Your task to perform on an android device: delete the emails in spam in the gmail app Image 0: 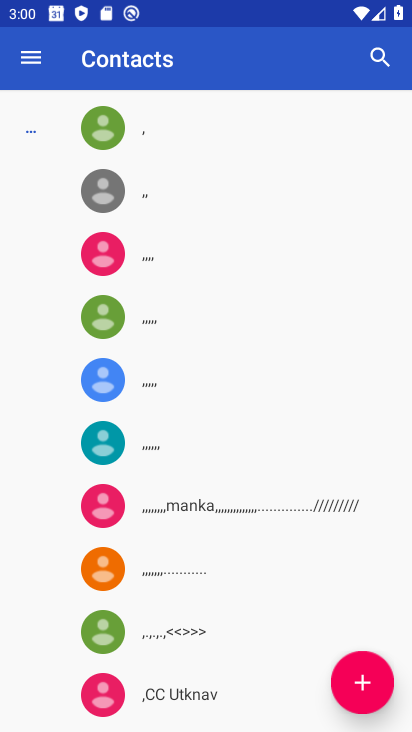
Step 0: press home button
Your task to perform on an android device: delete the emails in spam in the gmail app Image 1: 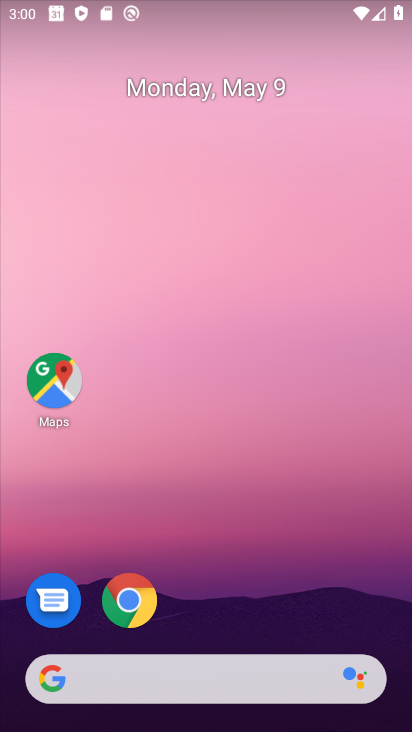
Step 1: drag from (194, 729) to (204, 121)
Your task to perform on an android device: delete the emails in spam in the gmail app Image 2: 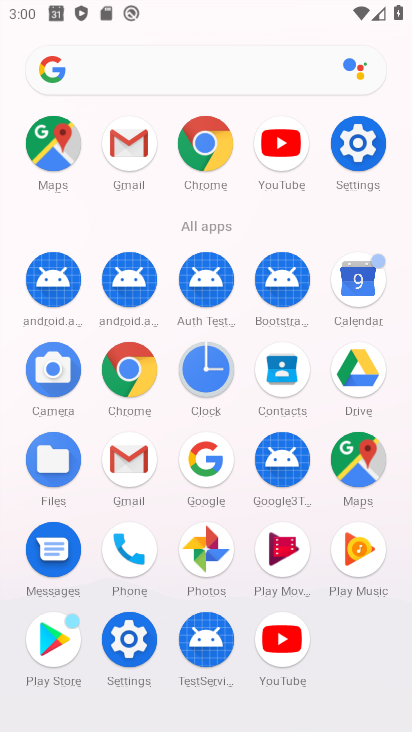
Step 2: click (136, 468)
Your task to perform on an android device: delete the emails in spam in the gmail app Image 3: 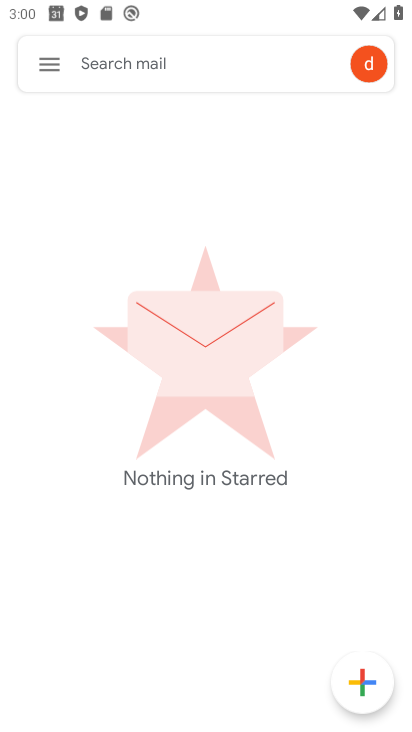
Step 3: click (43, 61)
Your task to perform on an android device: delete the emails in spam in the gmail app Image 4: 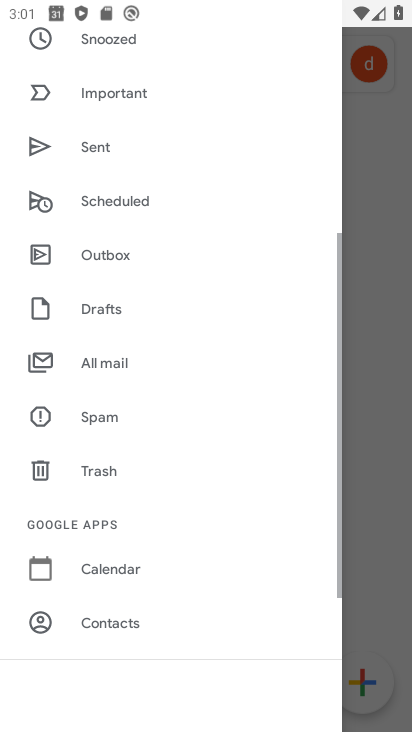
Step 4: drag from (142, 76) to (160, 578)
Your task to perform on an android device: delete the emails in spam in the gmail app Image 5: 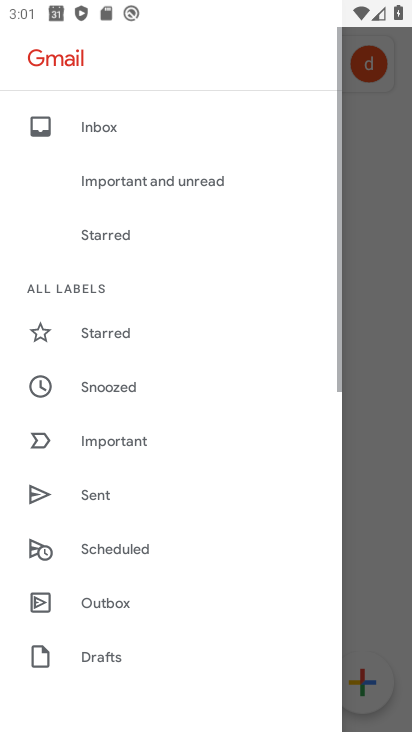
Step 5: click (108, 127)
Your task to perform on an android device: delete the emails in spam in the gmail app Image 6: 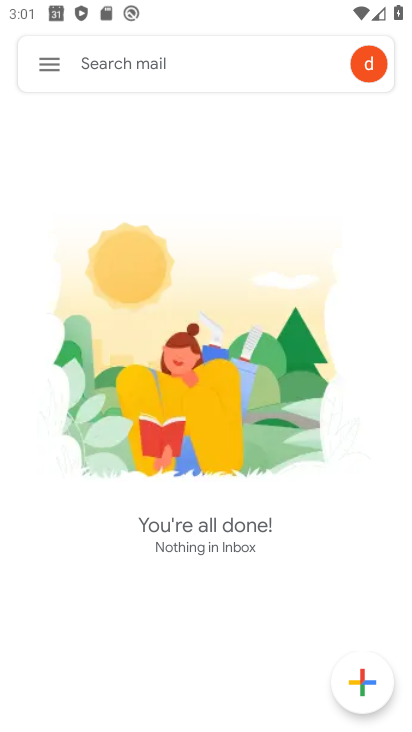
Step 6: task complete